Your task to perform on an android device: Go to settings Image 0: 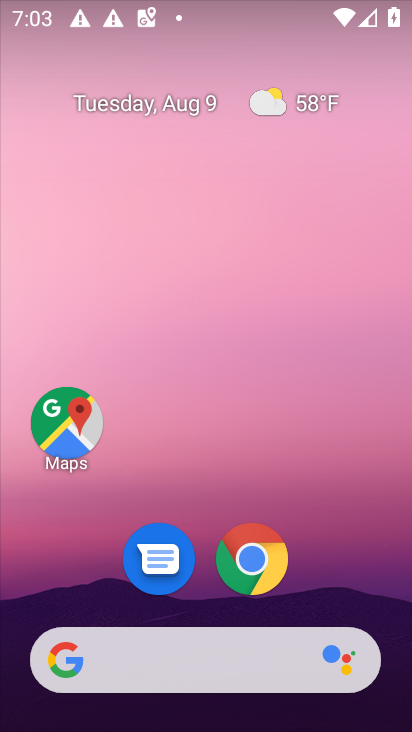
Step 0: drag from (199, 429) to (192, 6)
Your task to perform on an android device: Go to settings Image 1: 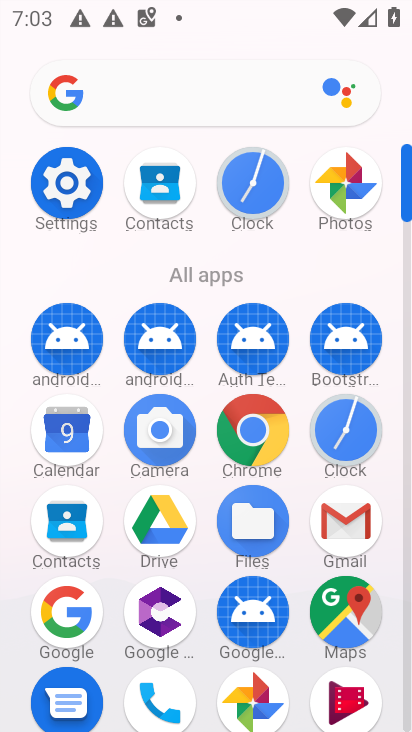
Step 1: click (70, 199)
Your task to perform on an android device: Go to settings Image 2: 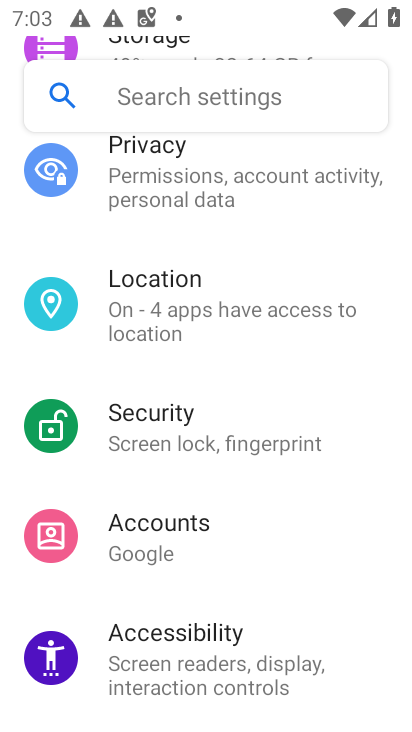
Step 2: task complete